Your task to perform on an android device: Open the map Image 0: 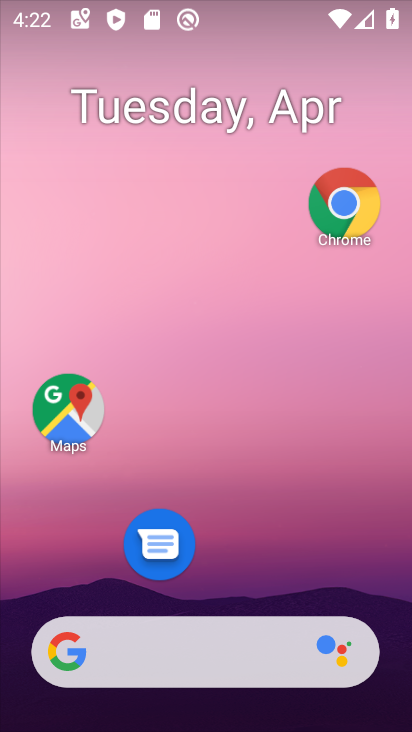
Step 0: click (65, 428)
Your task to perform on an android device: Open the map Image 1: 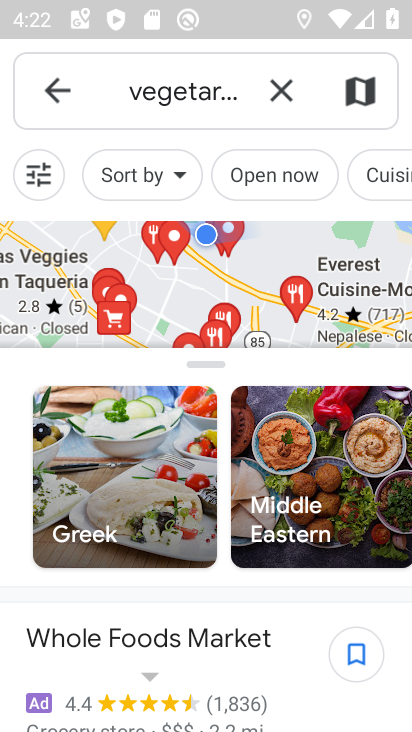
Step 1: task complete